Your task to perform on an android device: delete the emails in spam in the gmail app Image 0: 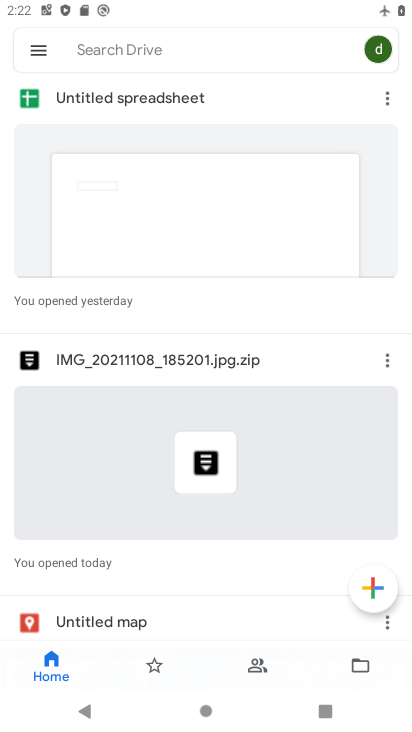
Step 0: press home button
Your task to perform on an android device: delete the emails in spam in the gmail app Image 1: 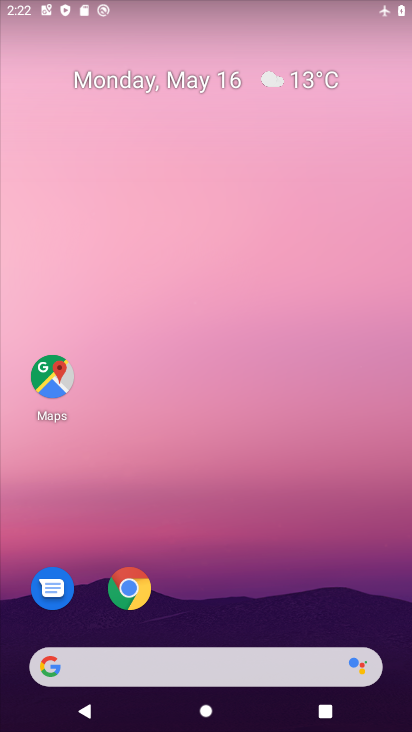
Step 1: drag from (297, 675) to (317, 14)
Your task to perform on an android device: delete the emails in spam in the gmail app Image 2: 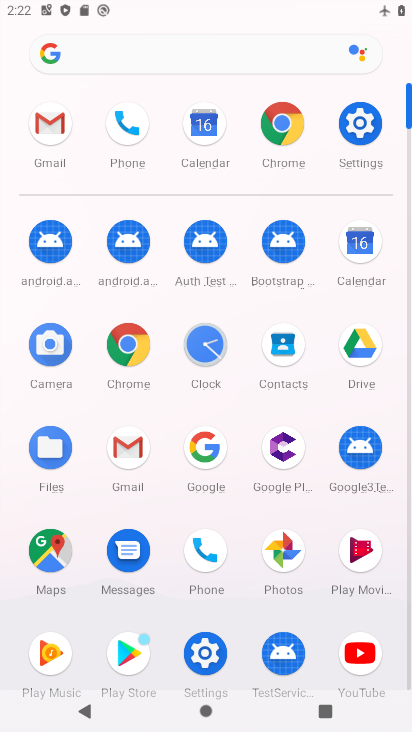
Step 2: click (118, 455)
Your task to perform on an android device: delete the emails in spam in the gmail app Image 3: 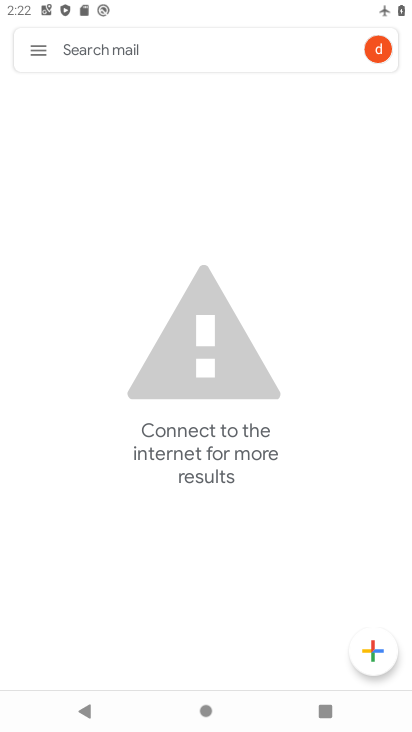
Step 3: click (27, 48)
Your task to perform on an android device: delete the emails in spam in the gmail app Image 4: 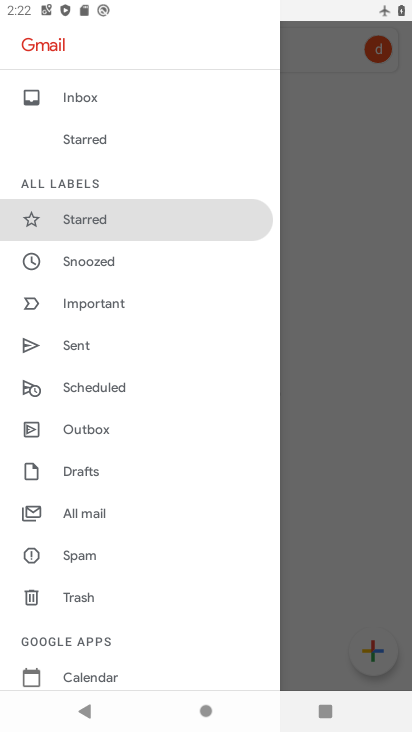
Step 4: click (116, 555)
Your task to perform on an android device: delete the emails in spam in the gmail app Image 5: 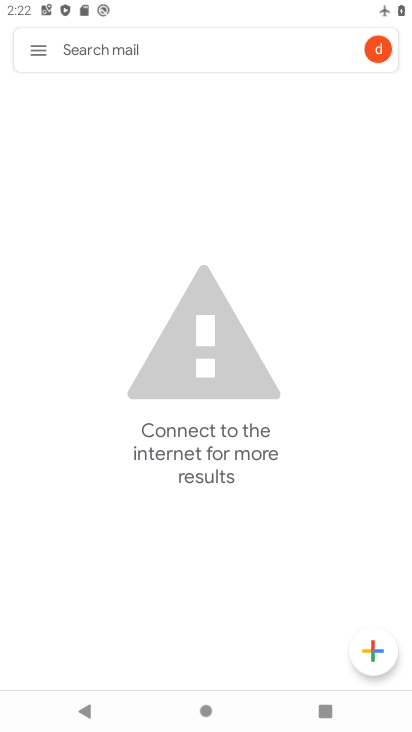
Step 5: task complete